Your task to perform on an android device: What is the news today? Image 0: 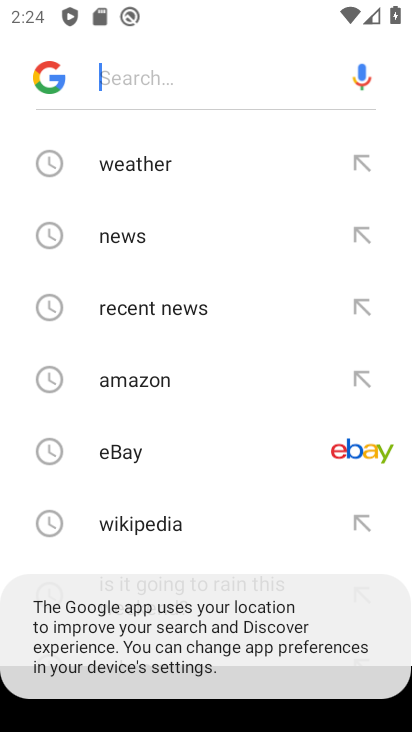
Step 0: press back button
Your task to perform on an android device: What is the news today? Image 1: 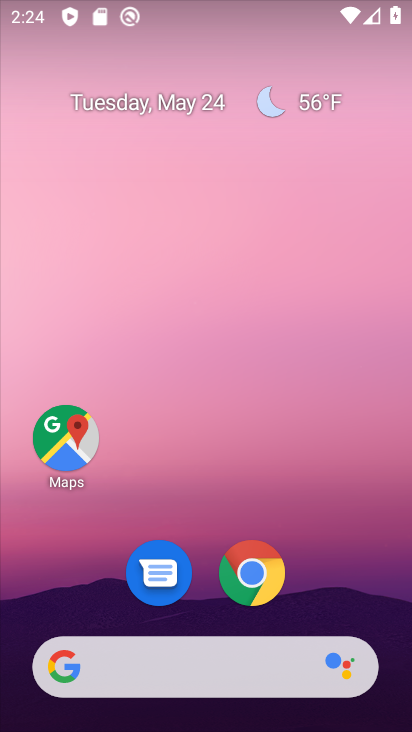
Step 1: drag from (314, 450) to (222, 57)
Your task to perform on an android device: What is the news today? Image 2: 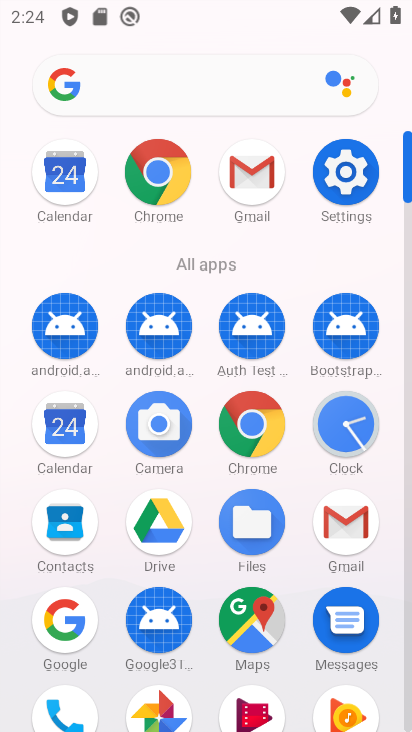
Step 2: drag from (25, 565) to (25, 243)
Your task to perform on an android device: What is the news today? Image 3: 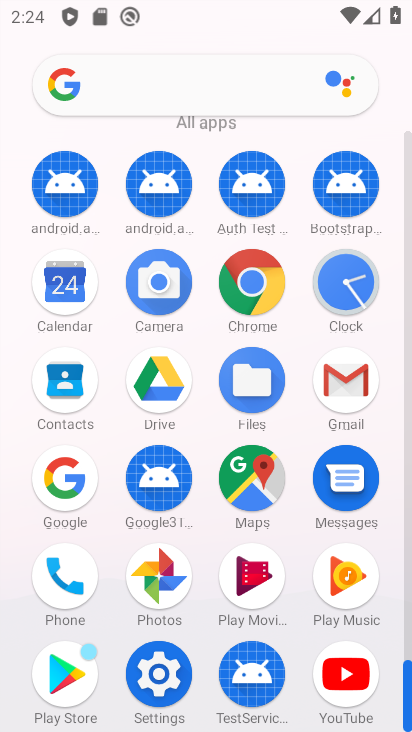
Step 3: click (249, 281)
Your task to perform on an android device: What is the news today? Image 4: 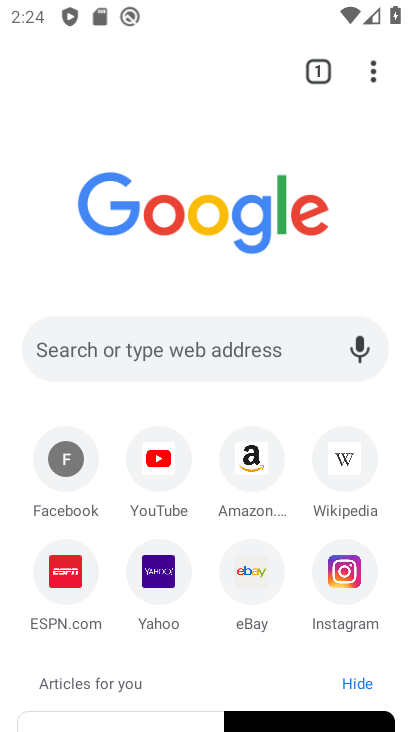
Step 4: click (173, 339)
Your task to perform on an android device: What is the news today? Image 5: 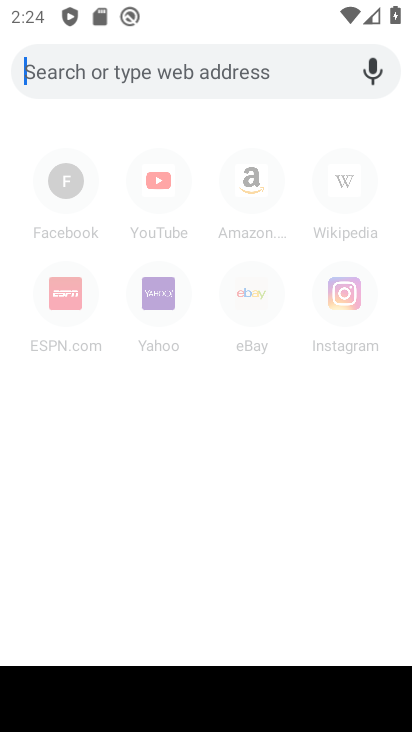
Step 5: type "What is the news today?"
Your task to perform on an android device: What is the news today? Image 6: 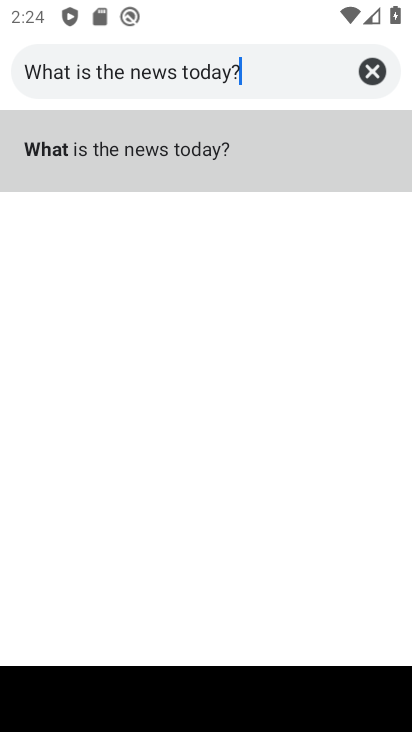
Step 6: type ""
Your task to perform on an android device: What is the news today? Image 7: 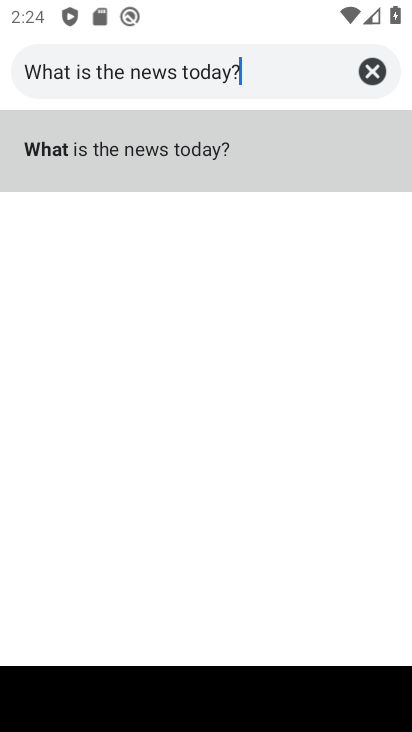
Step 7: click (178, 154)
Your task to perform on an android device: What is the news today? Image 8: 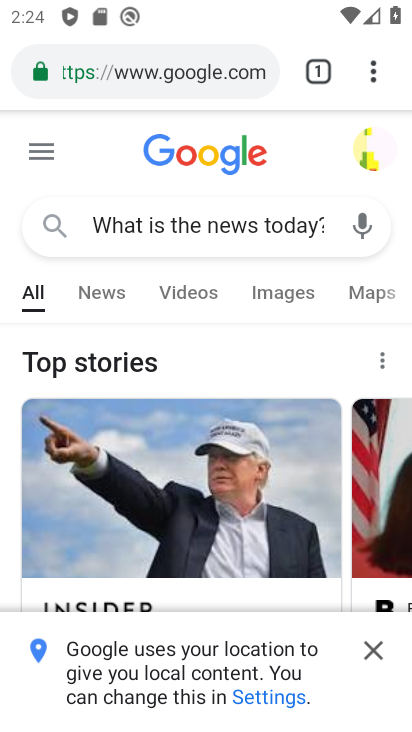
Step 8: click (95, 283)
Your task to perform on an android device: What is the news today? Image 9: 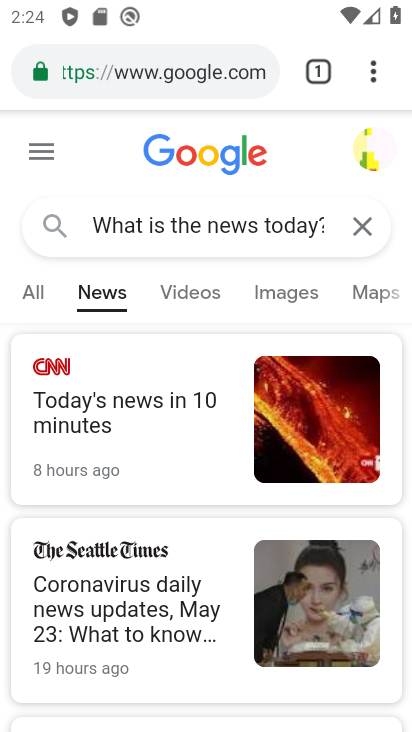
Step 9: task complete